Your task to perform on an android device: turn on translation in the chrome app Image 0: 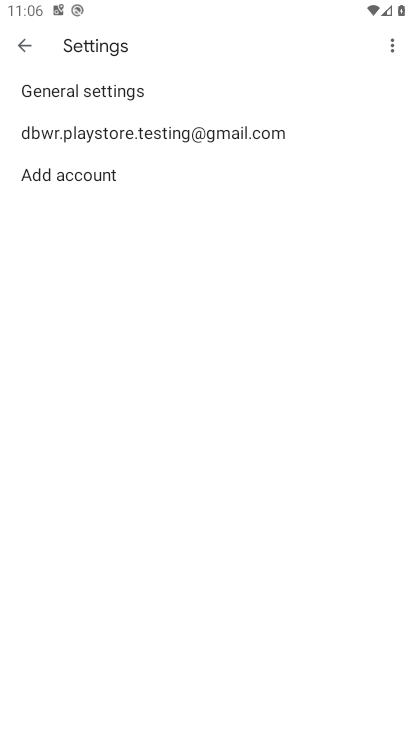
Step 0: press home button
Your task to perform on an android device: turn on translation in the chrome app Image 1: 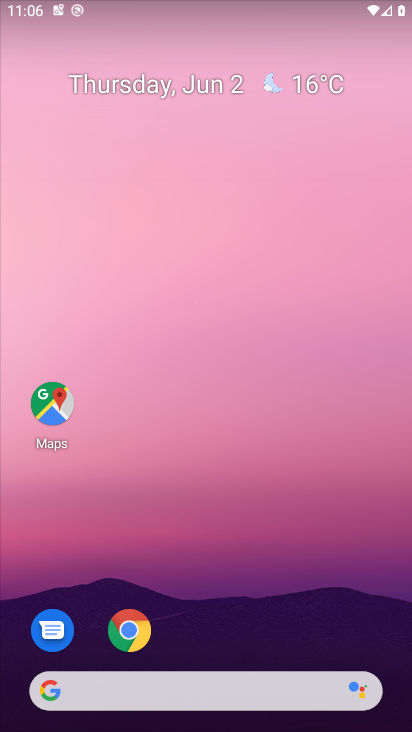
Step 1: click (132, 644)
Your task to perform on an android device: turn on translation in the chrome app Image 2: 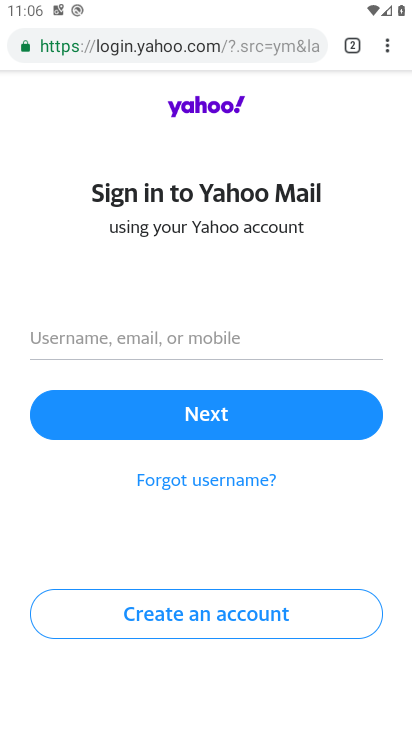
Step 2: click (394, 49)
Your task to perform on an android device: turn on translation in the chrome app Image 3: 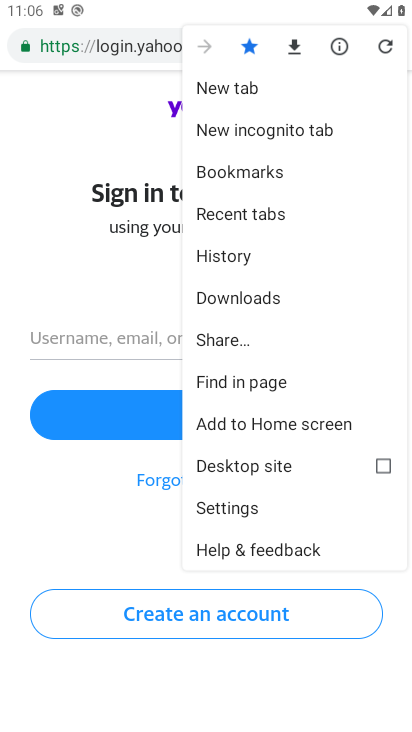
Step 3: click (240, 511)
Your task to perform on an android device: turn on translation in the chrome app Image 4: 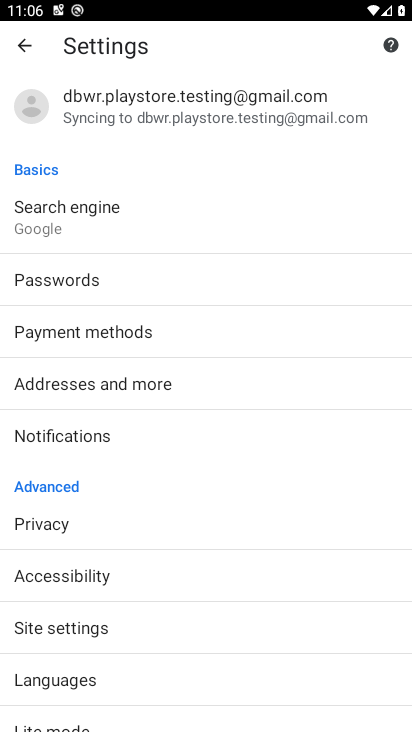
Step 4: click (63, 633)
Your task to perform on an android device: turn on translation in the chrome app Image 5: 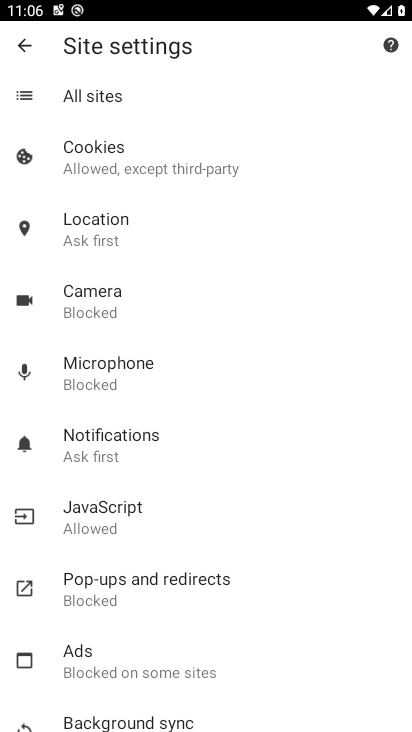
Step 5: drag from (115, 611) to (126, 427)
Your task to perform on an android device: turn on translation in the chrome app Image 6: 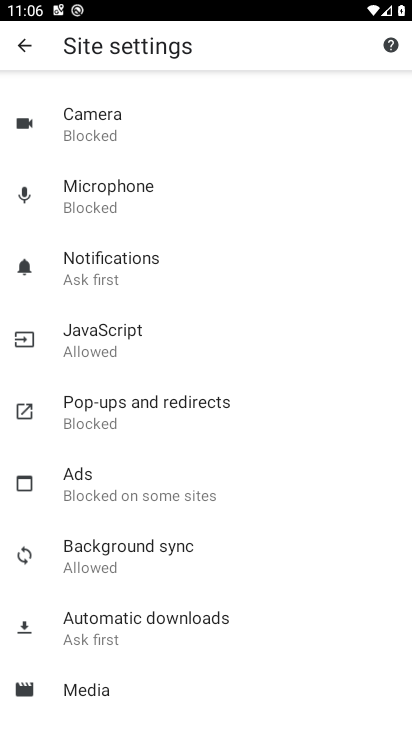
Step 6: click (21, 43)
Your task to perform on an android device: turn on translation in the chrome app Image 7: 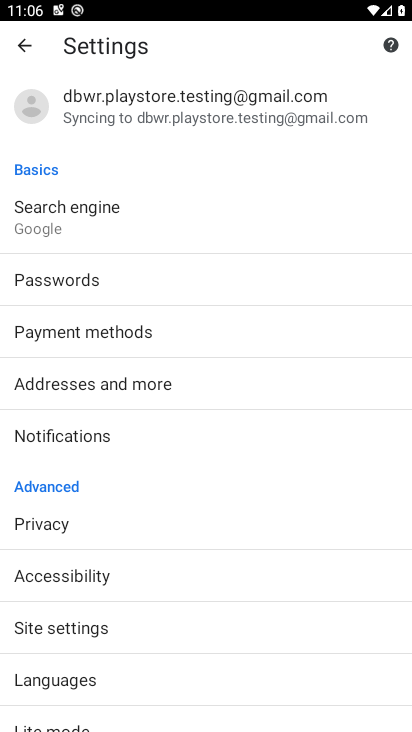
Step 7: click (70, 683)
Your task to perform on an android device: turn on translation in the chrome app Image 8: 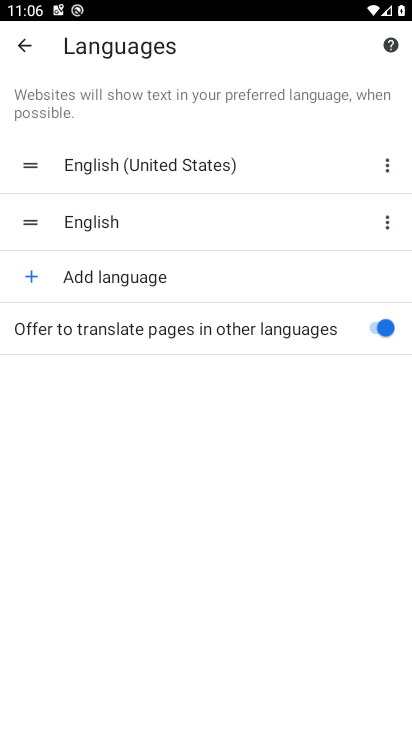
Step 8: task complete